Your task to perform on an android device: turn on the 24-hour format for clock Image 0: 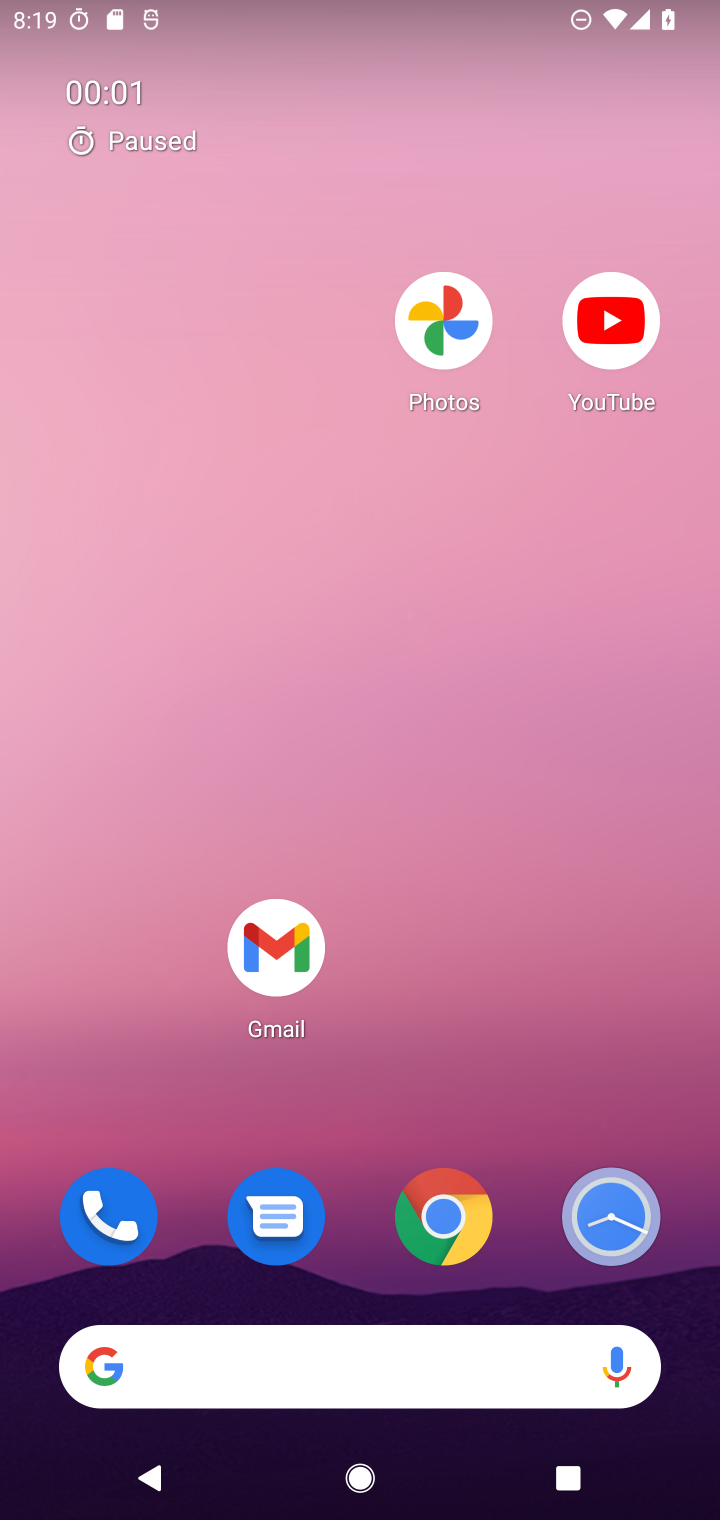
Step 0: drag from (568, 1142) to (547, 192)
Your task to perform on an android device: turn on the 24-hour format for clock Image 1: 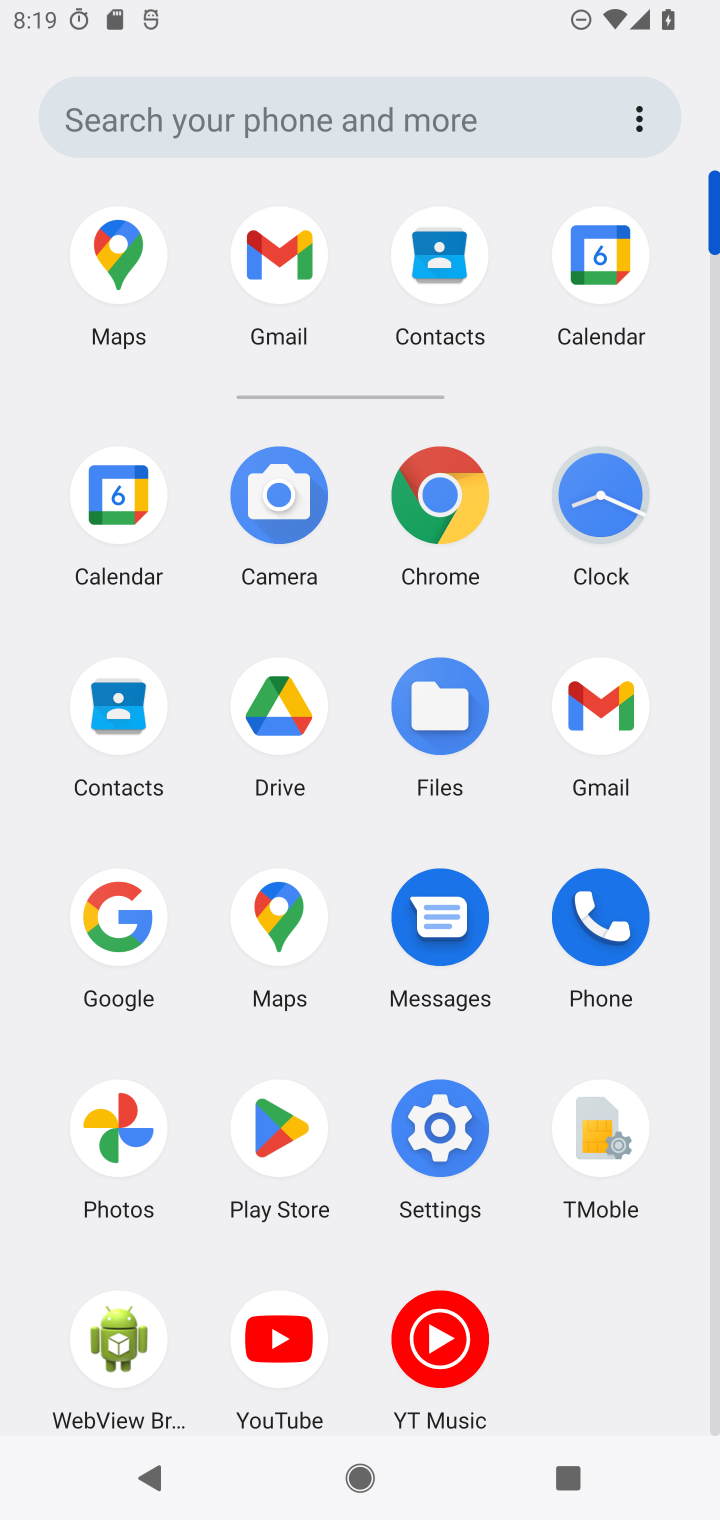
Step 1: click (588, 492)
Your task to perform on an android device: turn on the 24-hour format for clock Image 2: 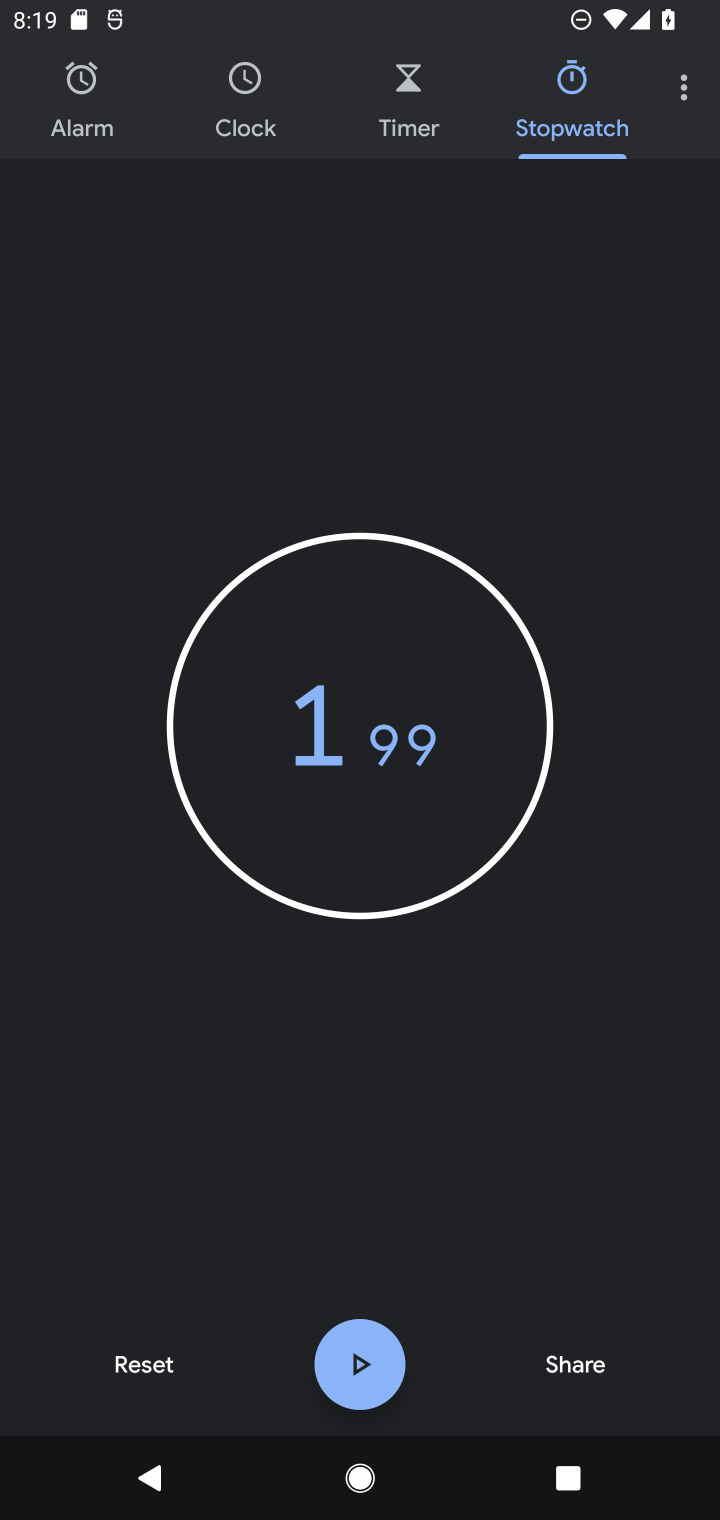
Step 2: click (687, 90)
Your task to perform on an android device: turn on the 24-hour format for clock Image 3: 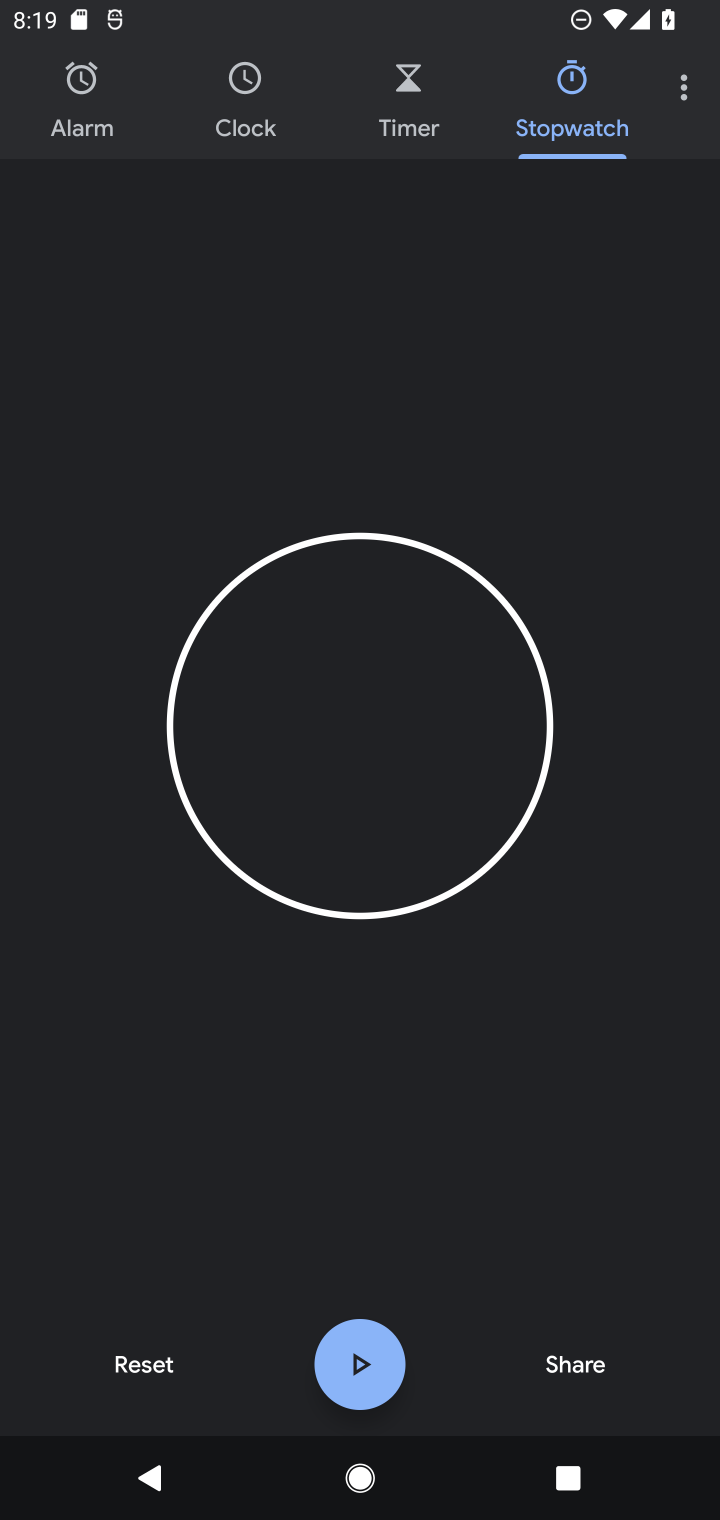
Step 3: click (680, 85)
Your task to perform on an android device: turn on the 24-hour format for clock Image 4: 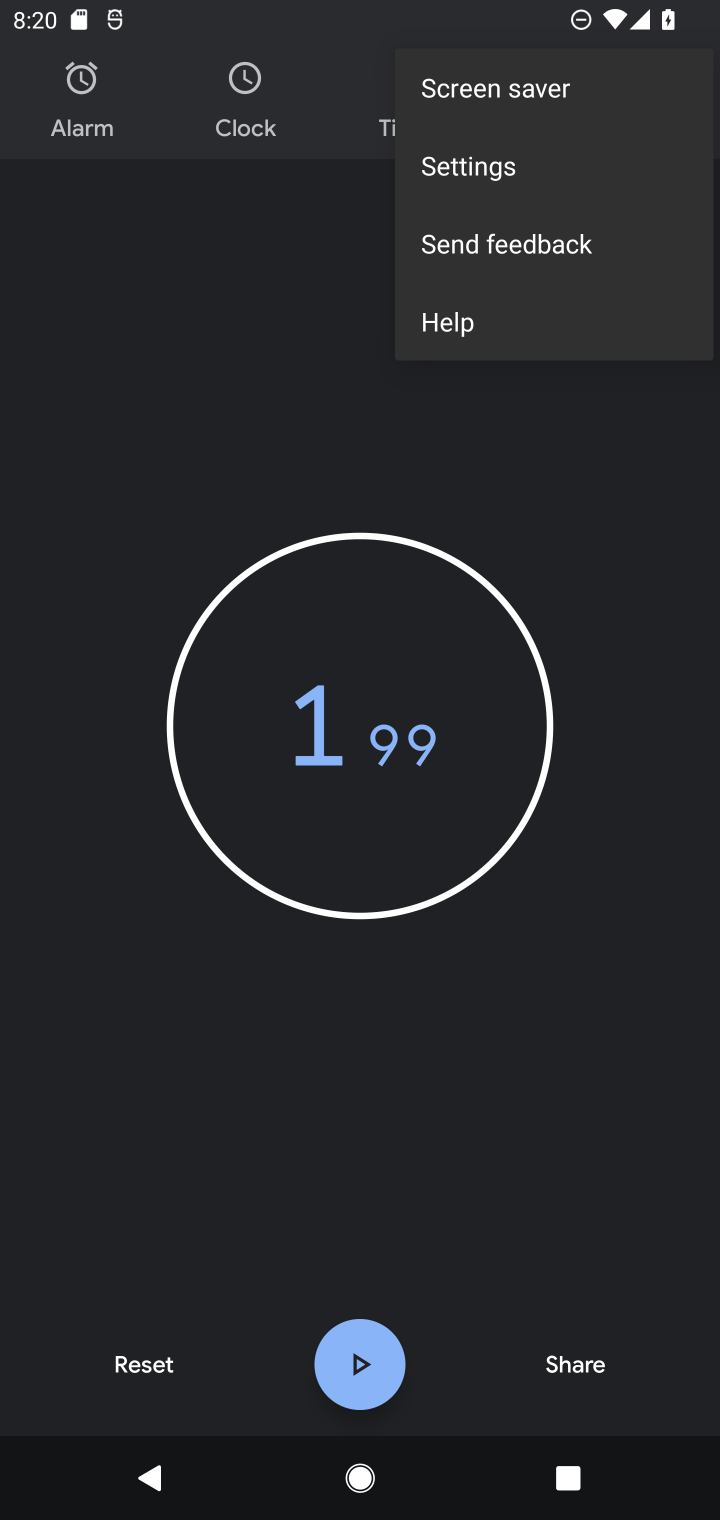
Step 4: click (516, 181)
Your task to perform on an android device: turn on the 24-hour format for clock Image 5: 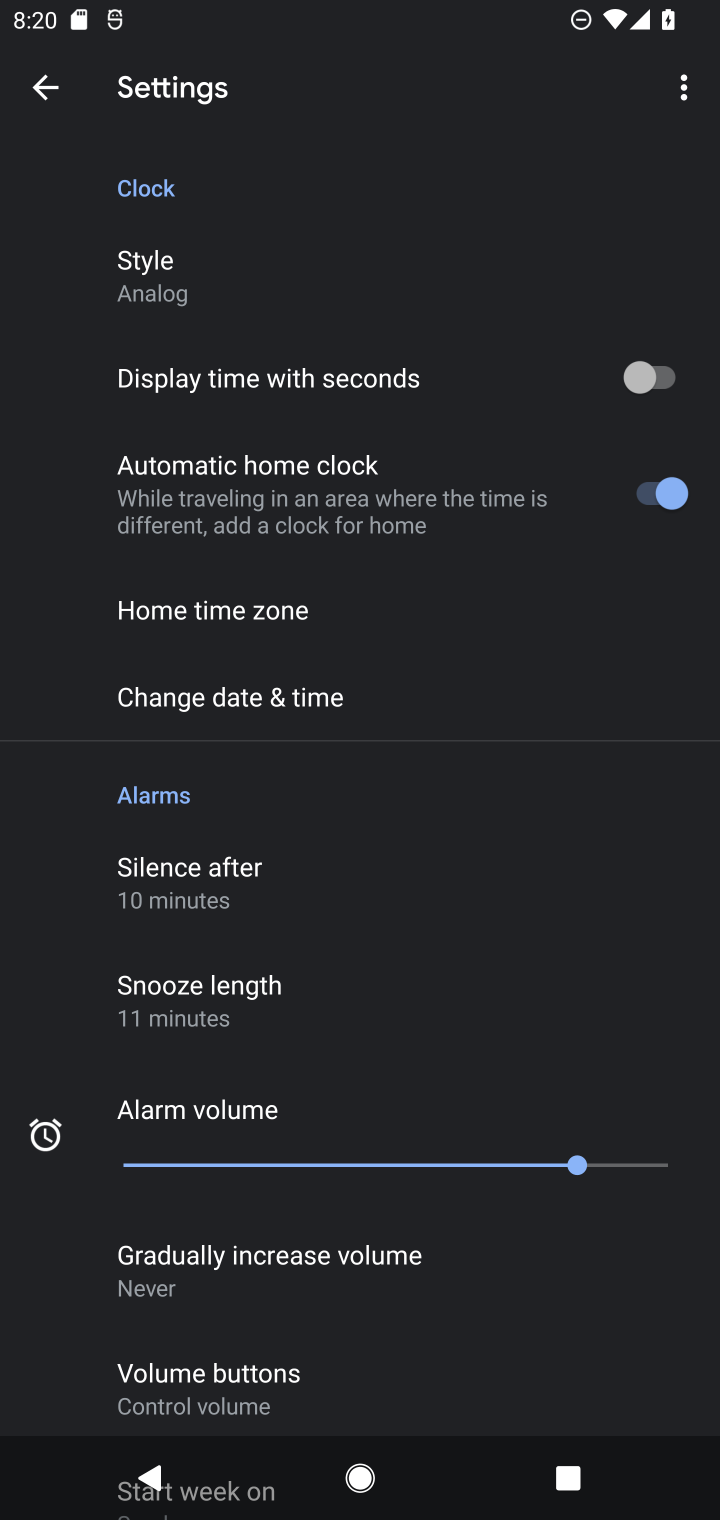
Step 5: click (249, 722)
Your task to perform on an android device: turn on the 24-hour format for clock Image 6: 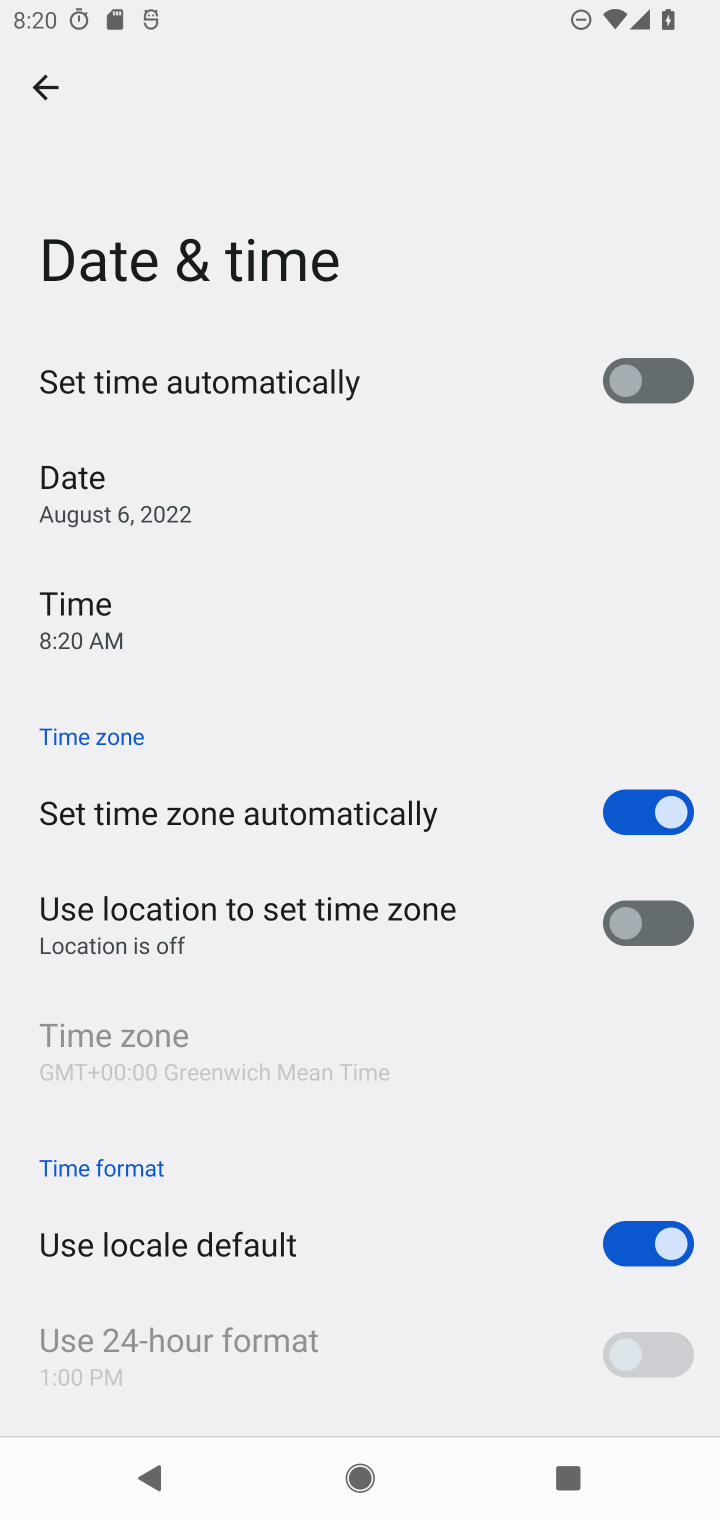
Step 6: click (672, 1244)
Your task to perform on an android device: turn on the 24-hour format for clock Image 7: 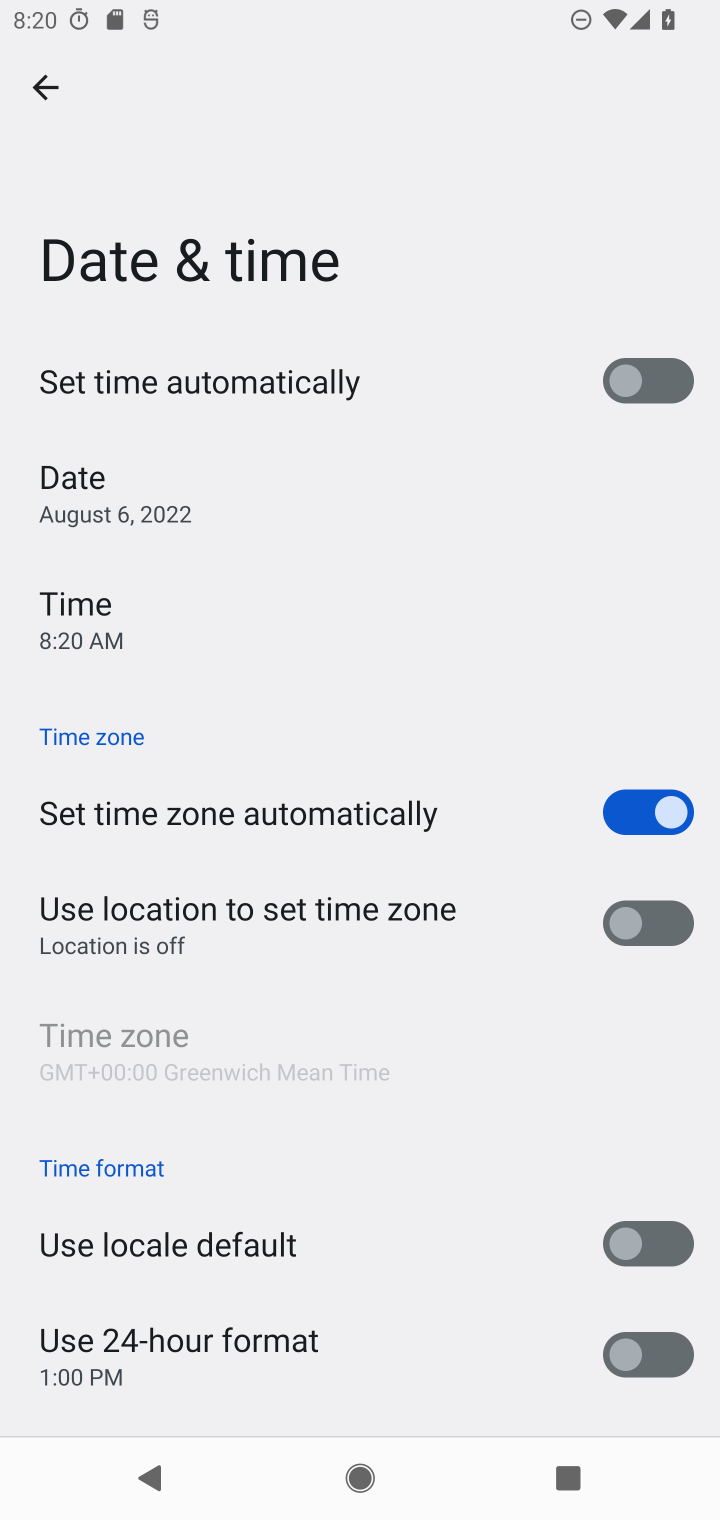
Step 7: click (664, 1346)
Your task to perform on an android device: turn on the 24-hour format for clock Image 8: 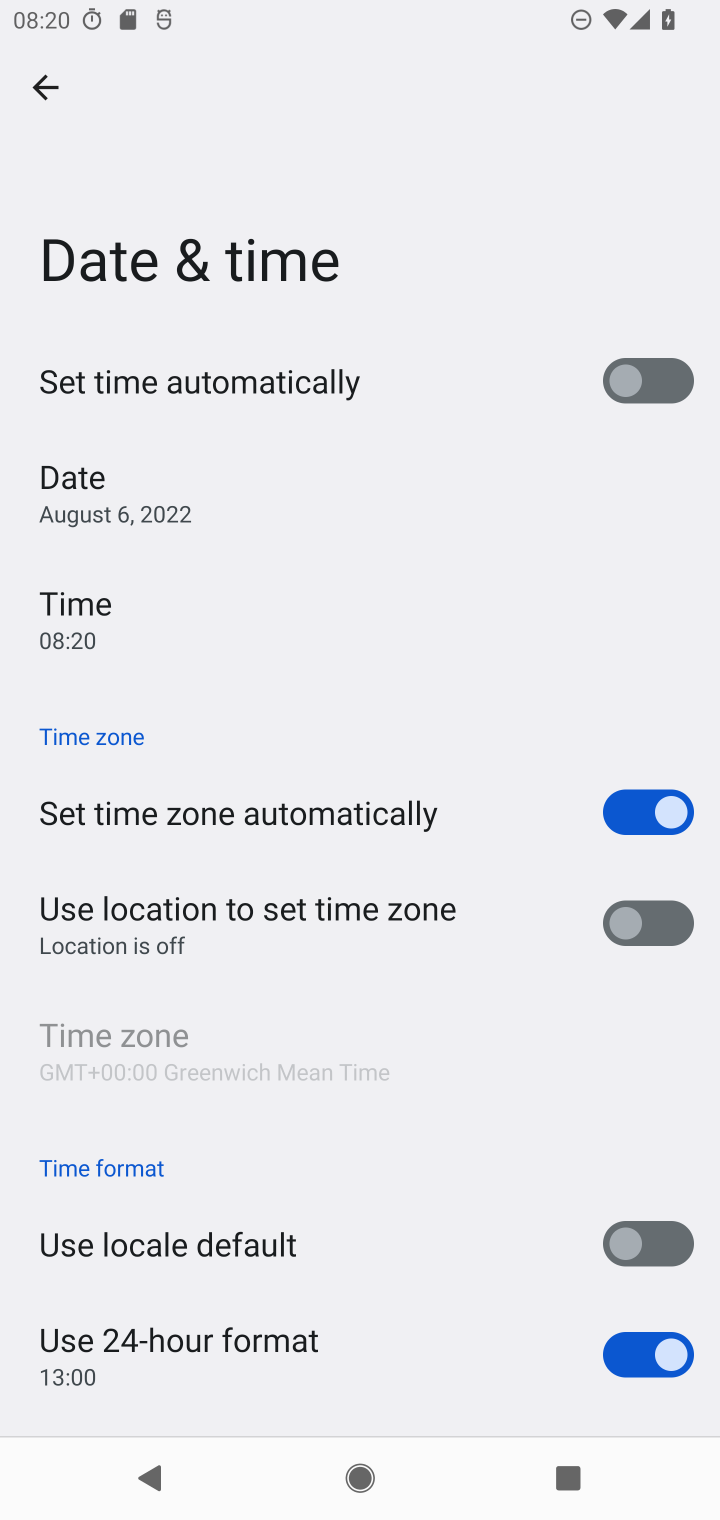
Step 8: task complete